Your task to perform on an android device: set the stopwatch Image 0: 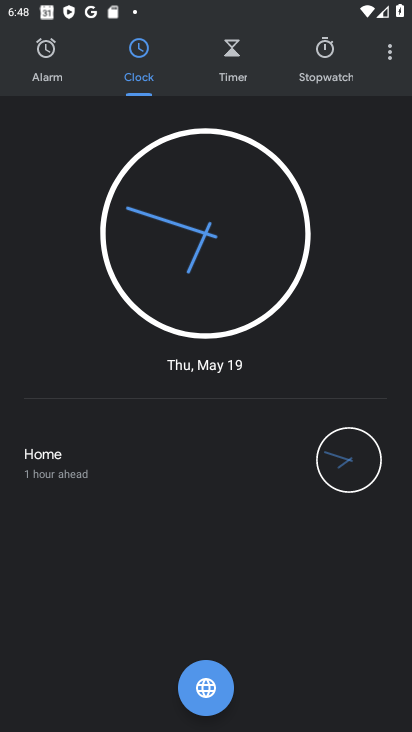
Step 0: press home button
Your task to perform on an android device: set the stopwatch Image 1: 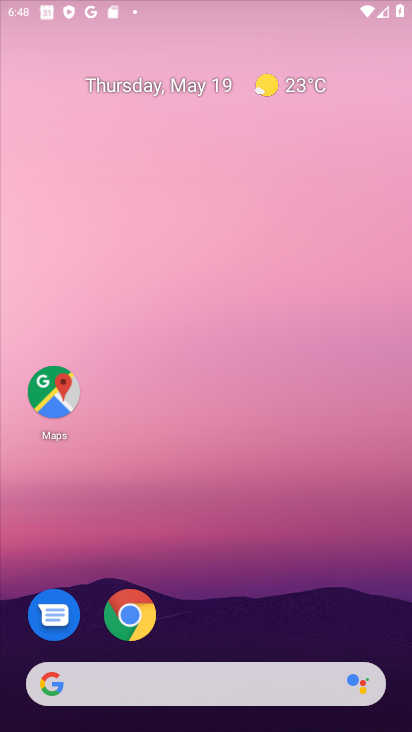
Step 1: drag from (318, 615) to (251, 56)
Your task to perform on an android device: set the stopwatch Image 2: 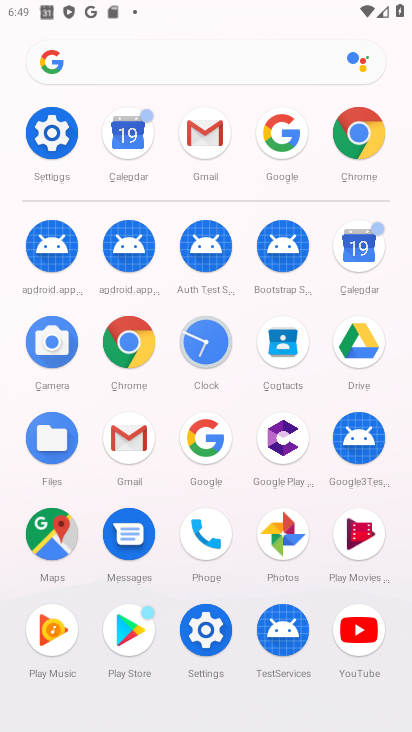
Step 2: click (228, 348)
Your task to perform on an android device: set the stopwatch Image 3: 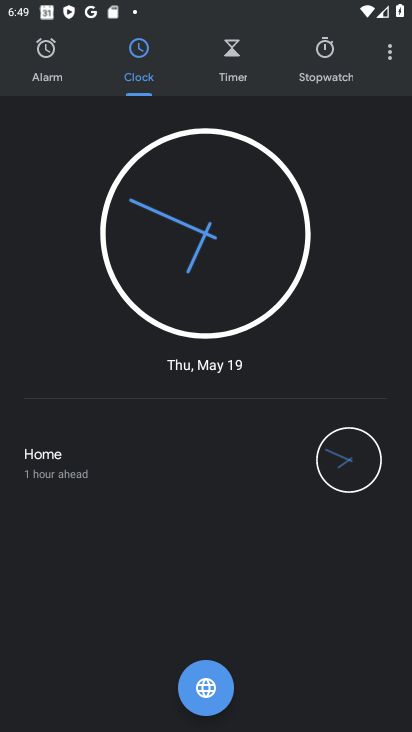
Step 3: click (327, 62)
Your task to perform on an android device: set the stopwatch Image 4: 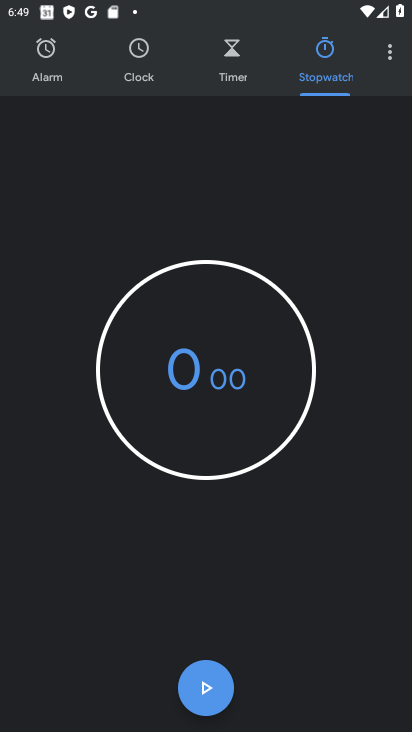
Step 4: task complete